Your task to perform on an android device: open the mobile data screen to see how much data has been used Image 0: 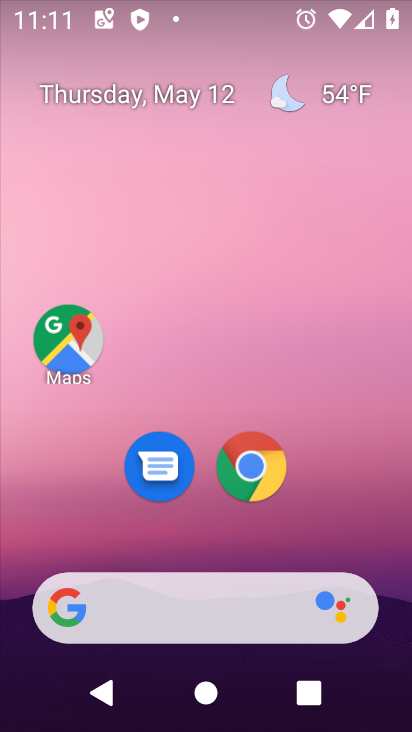
Step 0: drag from (358, 543) to (357, 136)
Your task to perform on an android device: open the mobile data screen to see how much data has been used Image 1: 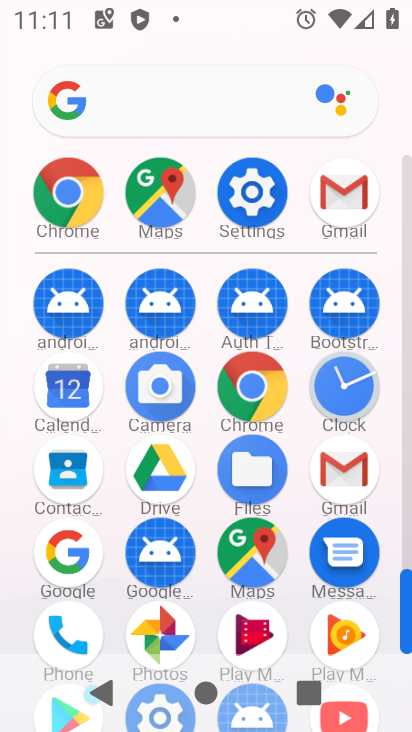
Step 1: click (266, 185)
Your task to perform on an android device: open the mobile data screen to see how much data has been used Image 2: 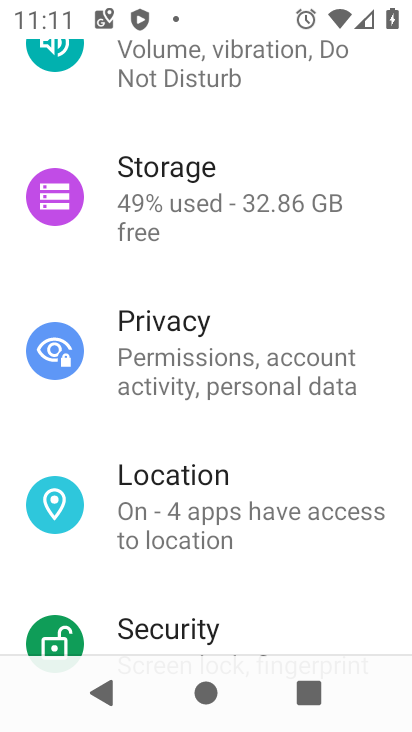
Step 2: drag from (236, 213) to (204, 646)
Your task to perform on an android device: open the mobile data screen to see how much data has been used Image 3: 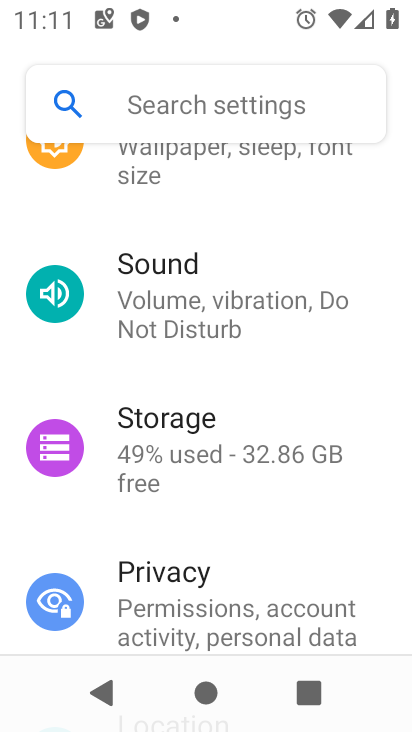
Step 3: drag from (267, 337) to (272, 571)
Your task to perform on an android device: open the mobile data screen to see how much data has been used Image 4: 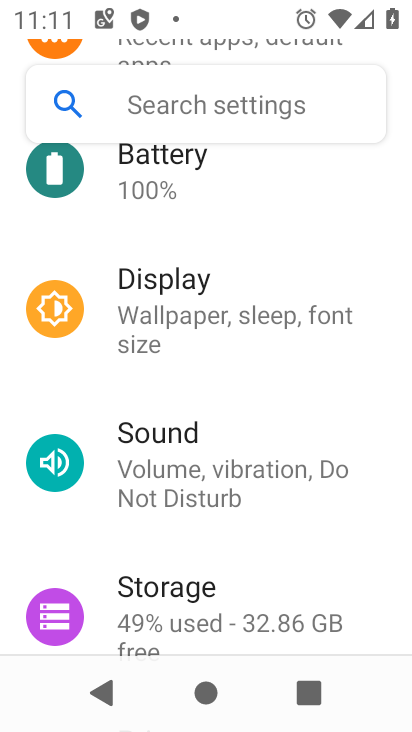
Step 4: drag from (268, 200) to (222, 618)
Your task to perform on an android device: open the mobile data screen to see how much data has been used Image 5: 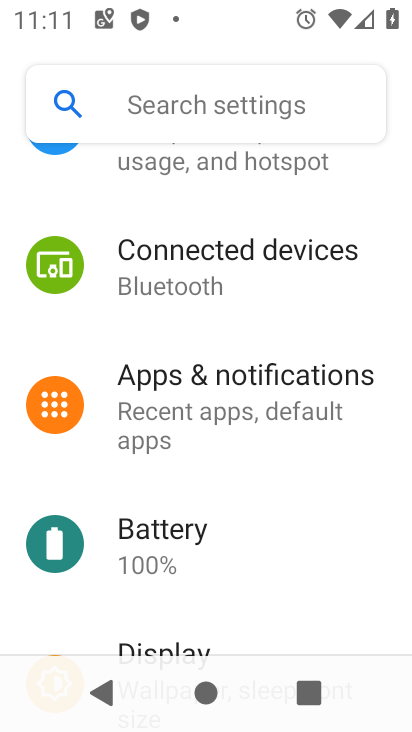
Step 5: drag from (256, 226) to (257, 632)
Your task to perform on an android device: open the mobile data screen to see how much data has been used Image 6: 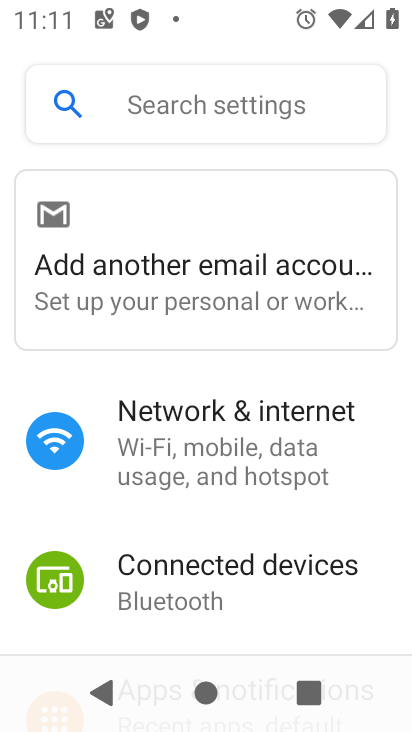
Step 6: click (183, 449)
Your task to perform on an android device: open the mobile data screen to see how much data has been used Image 7: 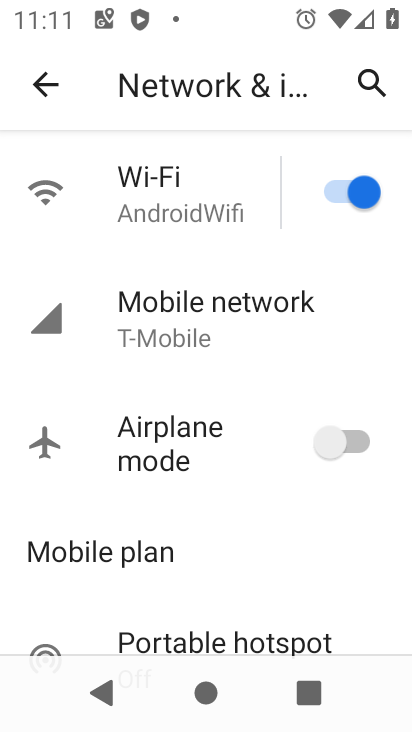
Step 7: click (251, 328)
Your task to perform on an android device: open the mobile data screen to see how much data has been used Image 8: 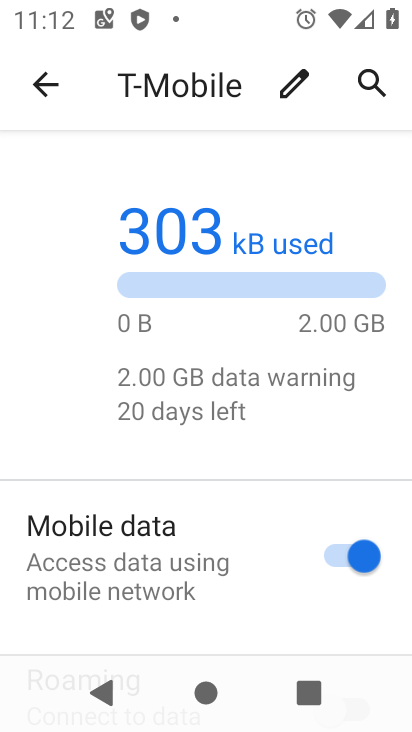
Step 8: task complete